Your task to perform on an android device: change text size in settings app Image 0: 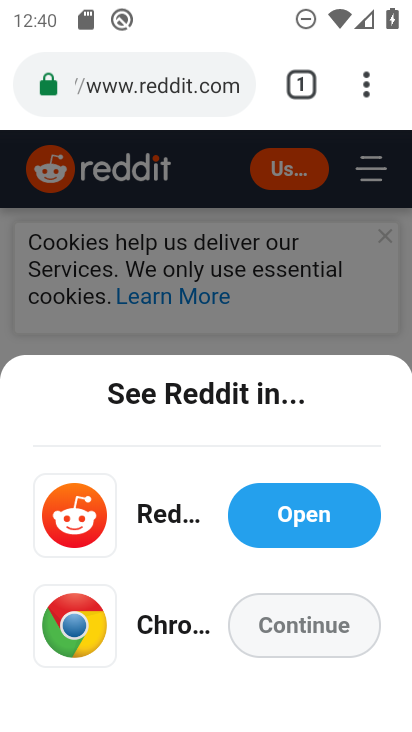
Step 0: press home button
Your task to perform on an android device: change text size in settings app Image 1: 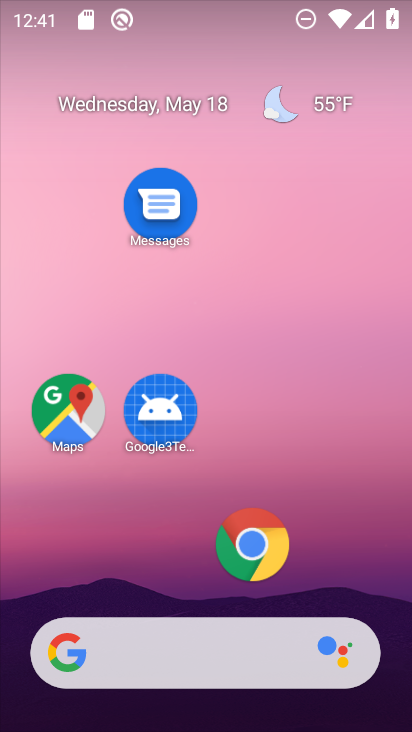
Step 1: drag from (114, 568) to (202, 117)
Your task to perform on an android device: change text size in settings app Image 2: 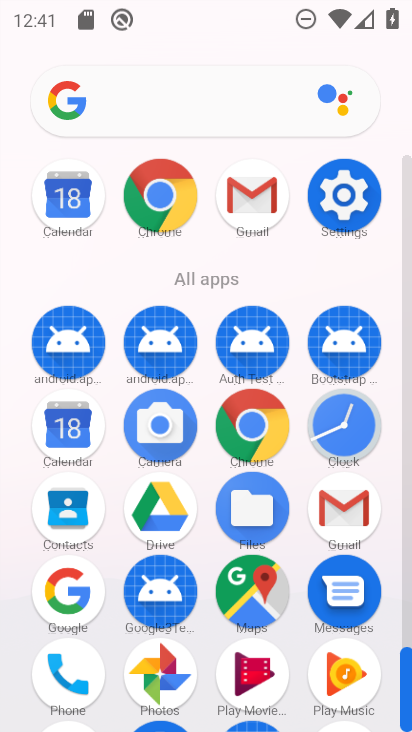
Step 2: click (341, 214)
Your task to perform on an android device: change text size in settings app Image 3: 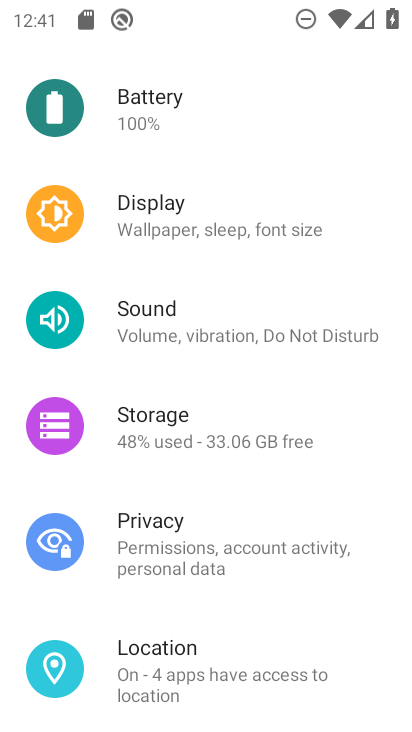
Step 3: click (239, 220)
Your task to perform on an android device: change text size in settings app Image 4: 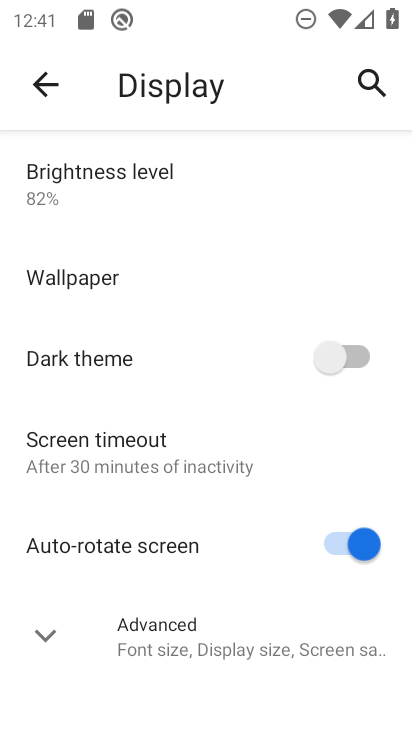
Step 4: click (151, 633)
Your task to perform on an android device: change text size in settings app Image 5: 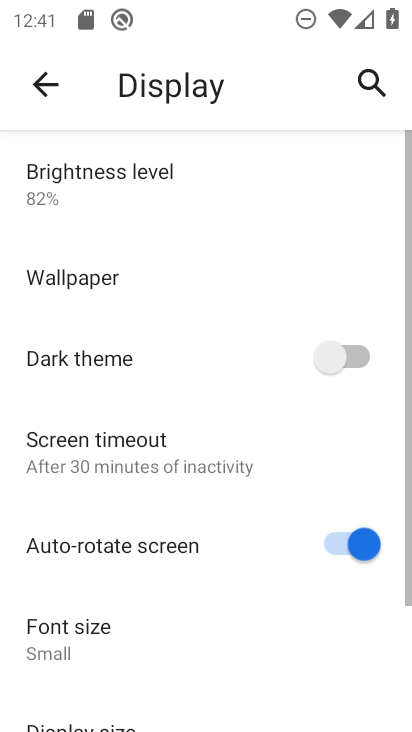
Step 5: click (99, 634)
Your task to perform on an android device: change text size in settings app Image 6: 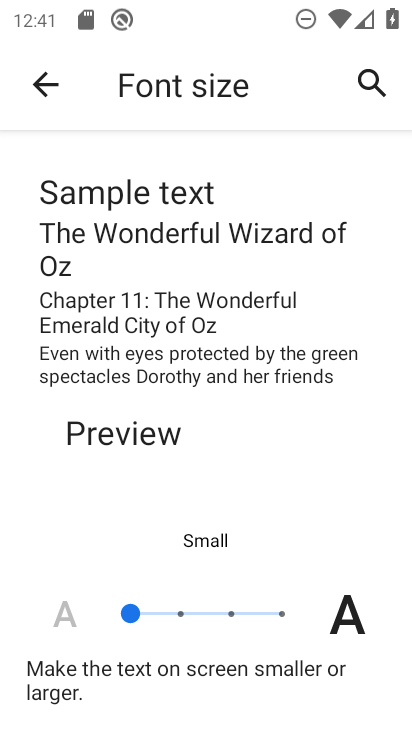
Step 6: click (176, 612)
Your task to perform on an android device: change text size in settings app Image 7: 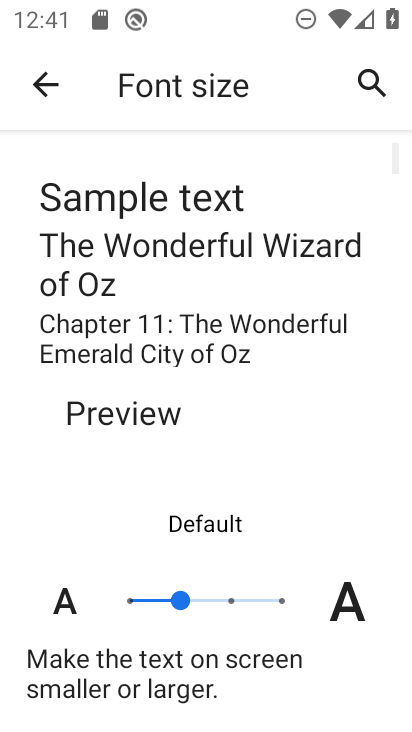
Step 7: task complete